Your task to perform on an android device: open the mobile data screen to see how much data has been used Image 0: 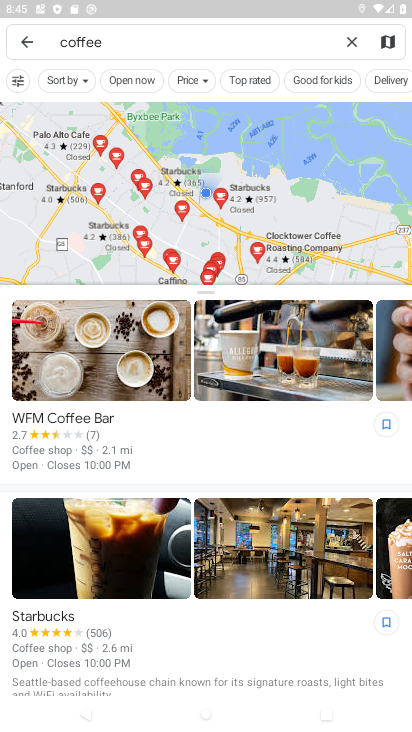
Step 0: drag from (195, 4) to (233, 555)
Your task to perform on an android device: open the mobile data screen to see how much data has been used Image 1: 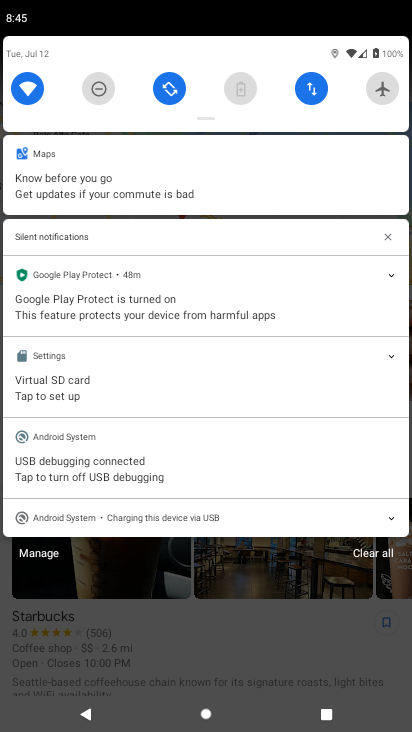
Step 1: click (301, 84)
Your task to perform on an android device: open the mobile data screen to see how much data has been used Image 2: 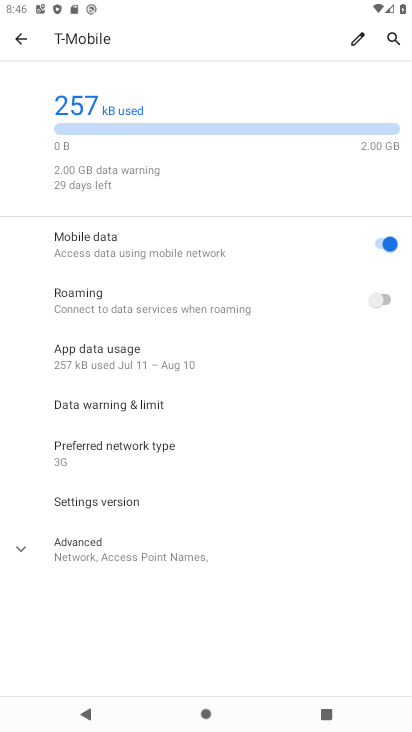
Step 2: task complete